Your task to perform on an android device: open sync settings in chrome Image 0: 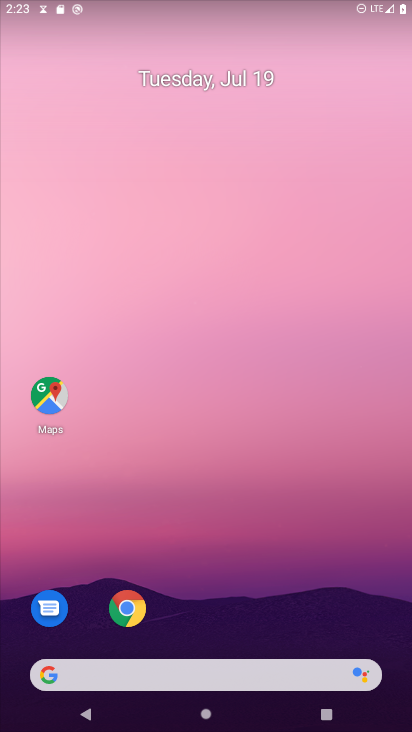
Step 0: drag from (301, 679) to (257, 68)
Your task to perform on an android device: open sync settings in chrome Image 1: 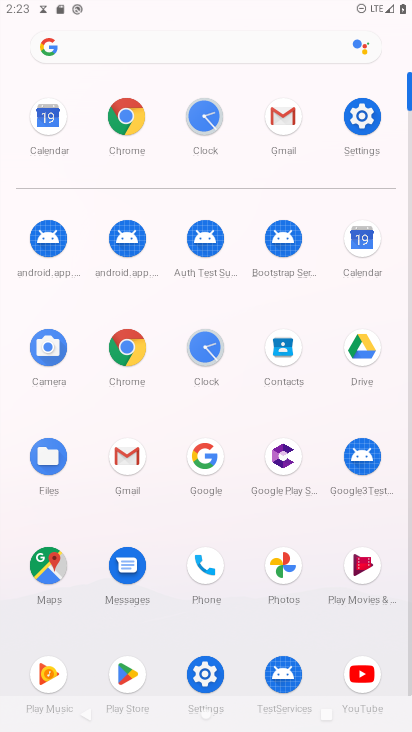
Step 1: click (119, 347)
Your task to perform on an android device: open sync settings in chrome Image 2: 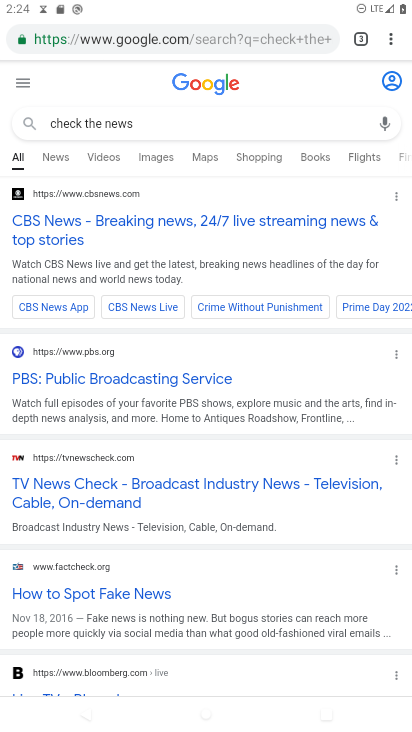
Step 2: drag from (382, 30) to (301, 426)
Your task to perform on an android device: open sync settings in chrome Image 3: 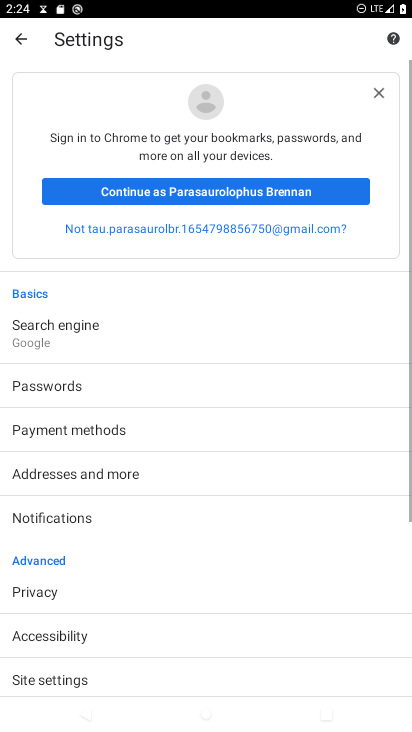
Step 3: drag from (232, 621) to (230, 219)
Your task to perform on an android device: open sync settings in chrome Image 4: 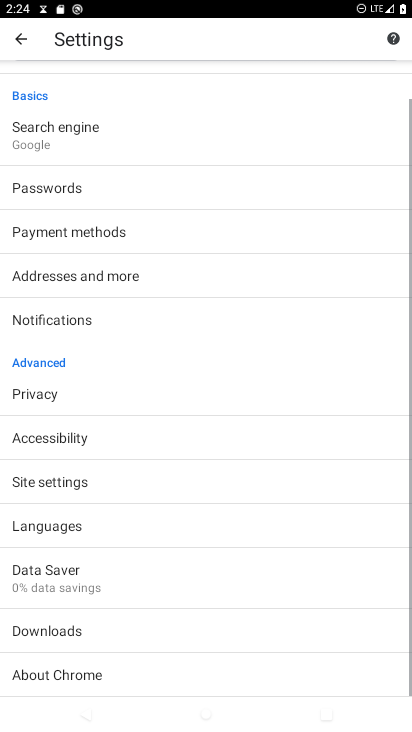
Step 4: click (112, 487)
Your task to perform on an android device: open sync settings in chrome Image 5: 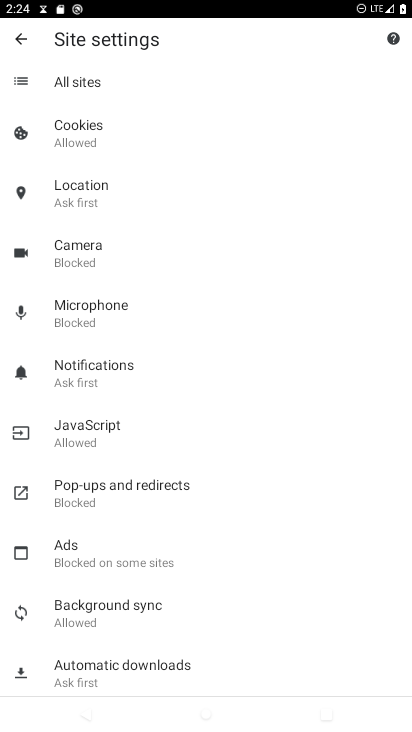
Step 5: click (172, 601)
Your task to perform on an android device: open sync settings in chrome Image 6: 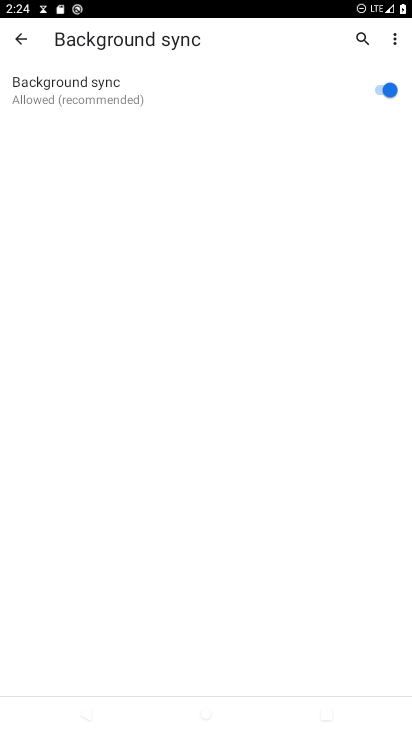
Step 6: task complete